Your task to perform on an android device: What's the weather today? Image 0: 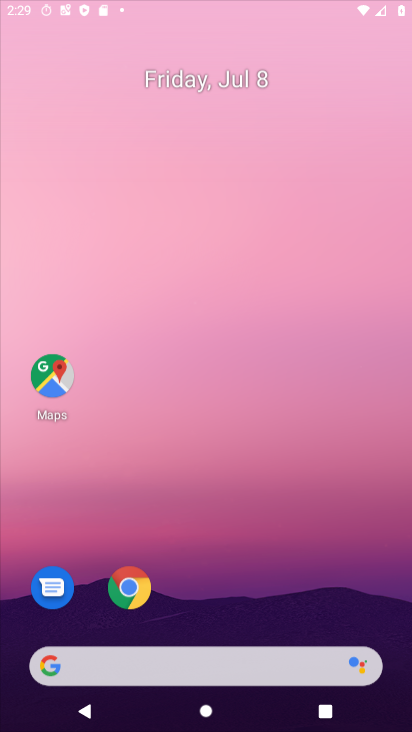
Step 0: press home button
Your task to perform on an android device: What's the weather today? Image 1: 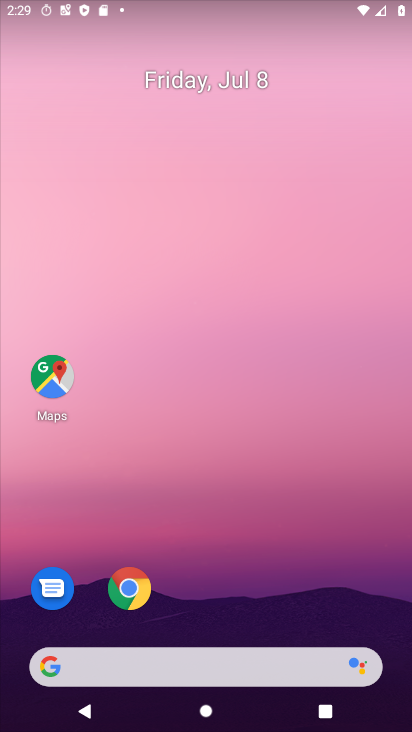
Step 1: press home button
Your task to perform on an android device: What's the weather today? Image 2: 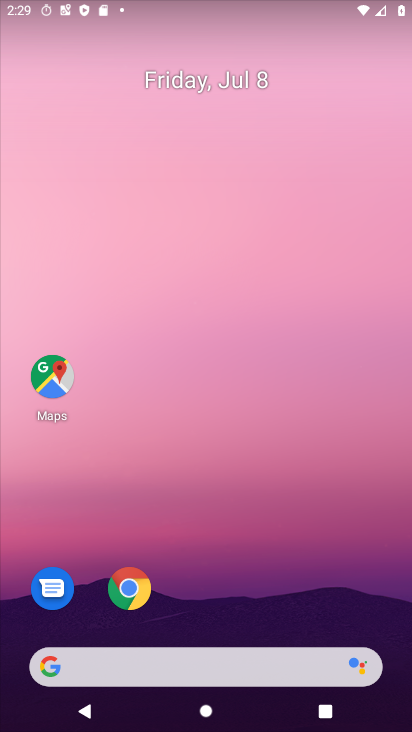
Step 2: click (48, 674)
Your task to perform on an android device: What's the weather today? Image 3: 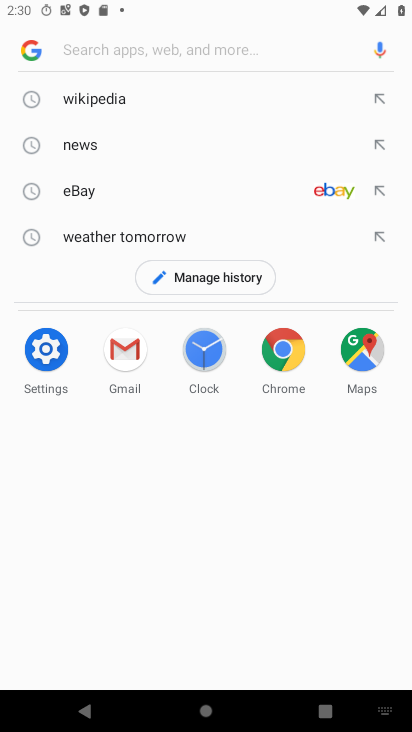
Step 3: type "weather today"
Your task to perform on an android device: What's the weather today? Image 4: 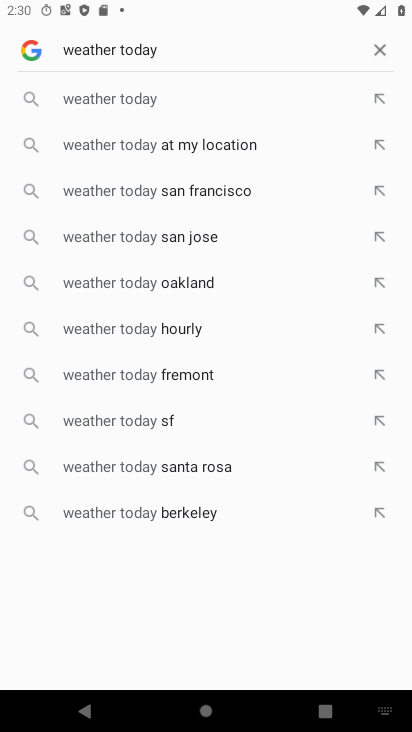
Step 4: click (131, 98)
Your task to perform on an android device: What's the weather today? Image 5: 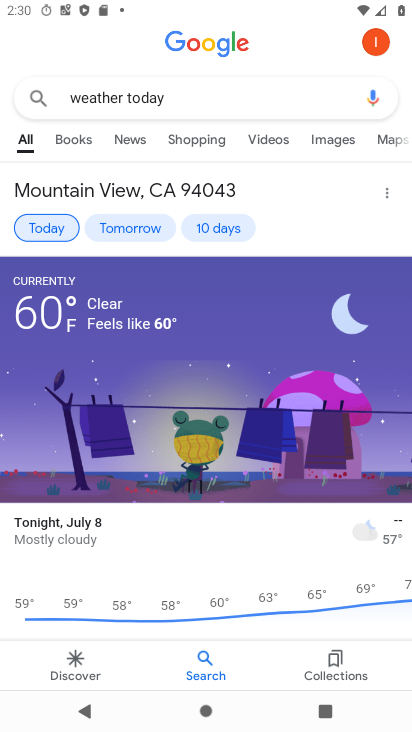
Step 5: task complete